Your task to perform on an android device: Open accessibility settings Image 0: 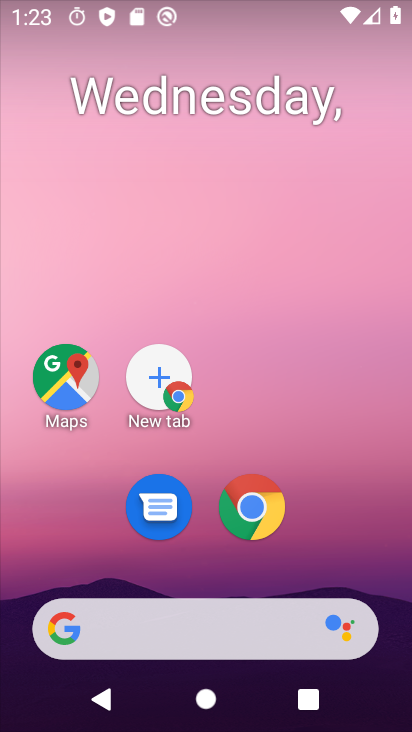
Step 0: click (409, 272)
Your task to perform on an android device: Open accessibility settings Image 1: 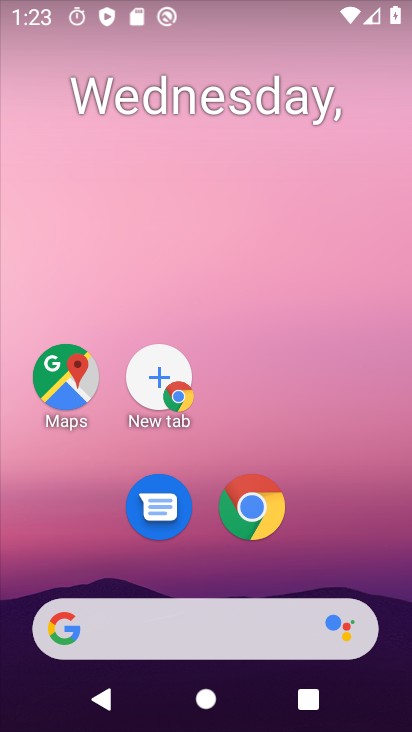
Step 1: drag from (344, 489) to (328, 81)
Your task to perform on an android device: Open accessibility settings Image 2: 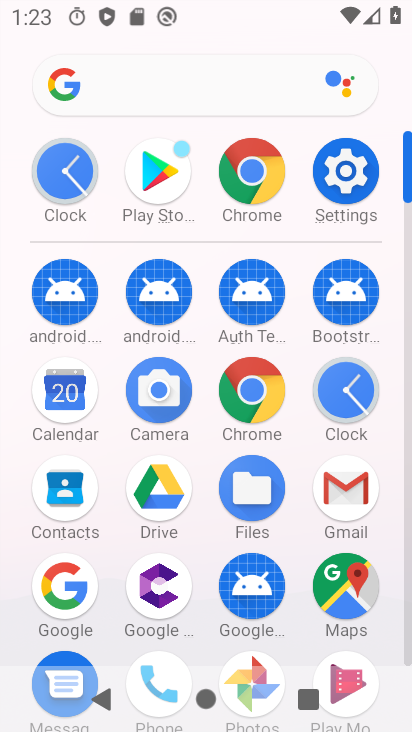
Step 2: click (358, 176)
Your task to perform on an android device: Open accessibility settings Image 3: 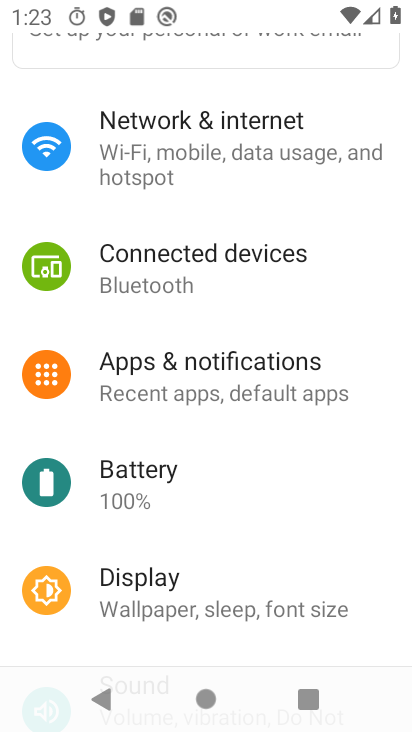
Step 3: drag from (237, 510) to (291, 153)
Your task to perform on an android device: Open accessibility settings Image 4: 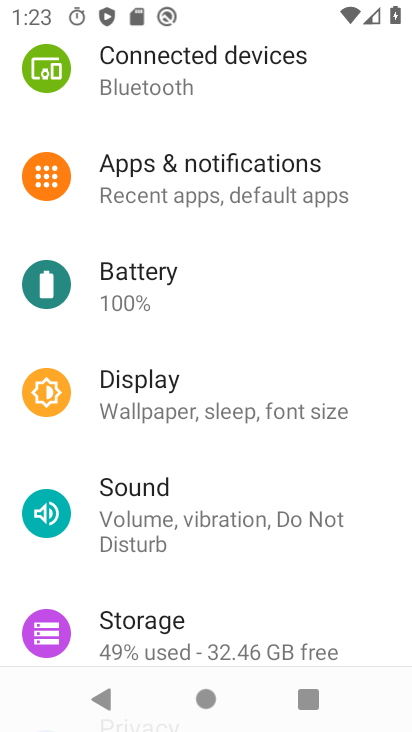
Step 4: drag from (240, 445) to (295, 137)
Your task to perform on an android device: Open accessibility settings Image 5: 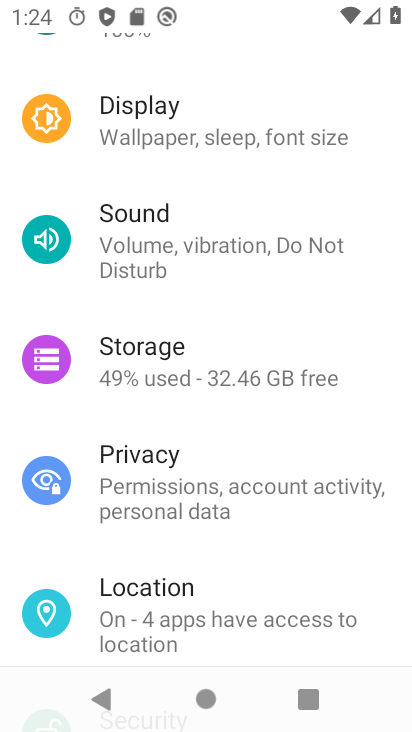
Step 5: drag from (222, 592) to (268, 208)
Your task to perform on an android device: Open accessibility settings Image 6: 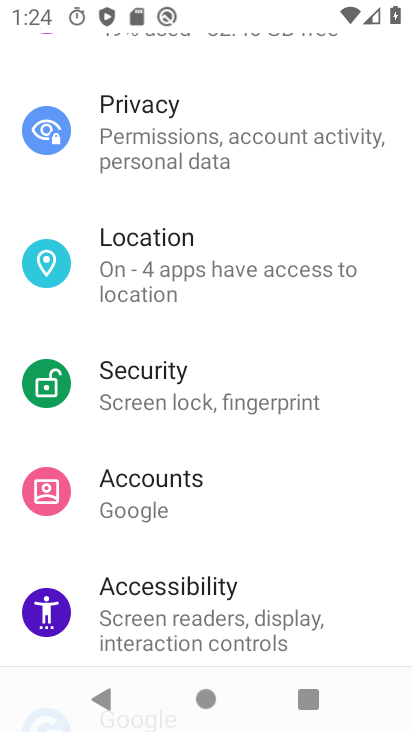
Step 6: click (161, 632)
Your task to perform on an android device: Open accessibility settings Image 7: 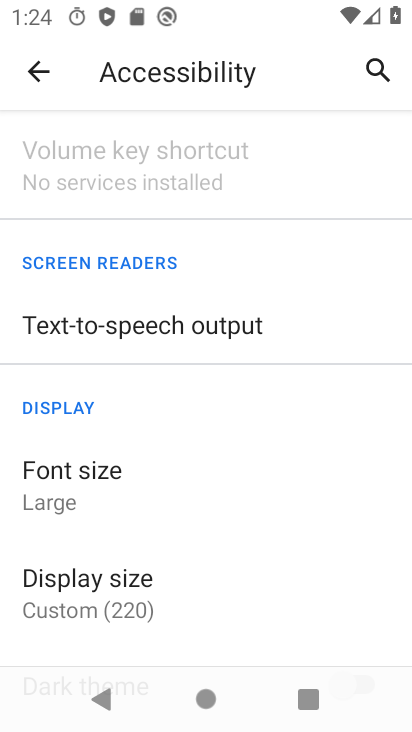
Step 7: task complete